Your task to perform on an android device: Go to battery settings Image 0: 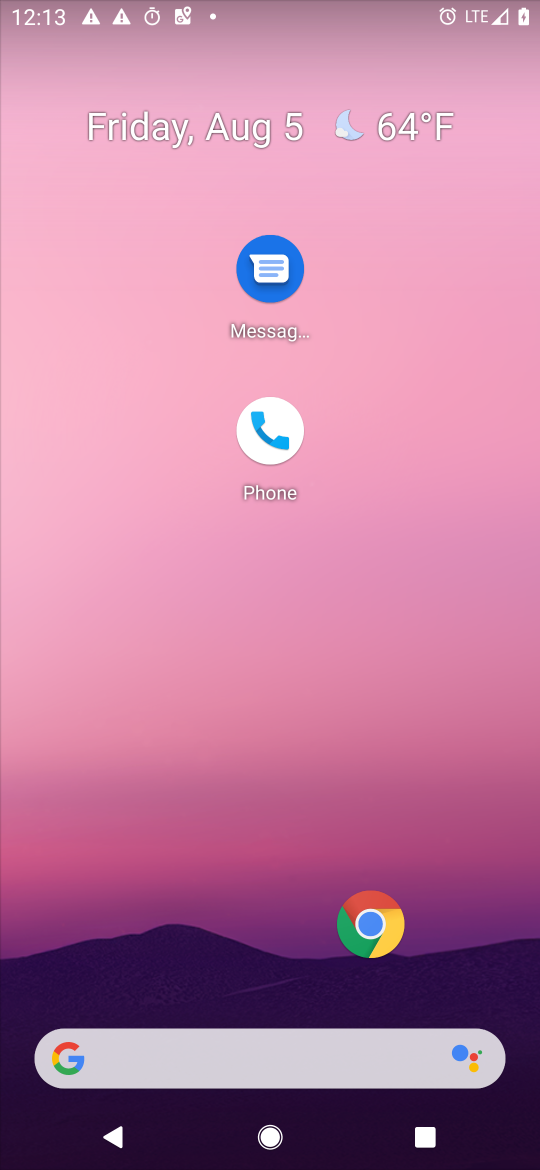
Step 0: drag from (217, 912) to (192, 336)
Your task to perform on an android device: Go to battery settings Image 1: 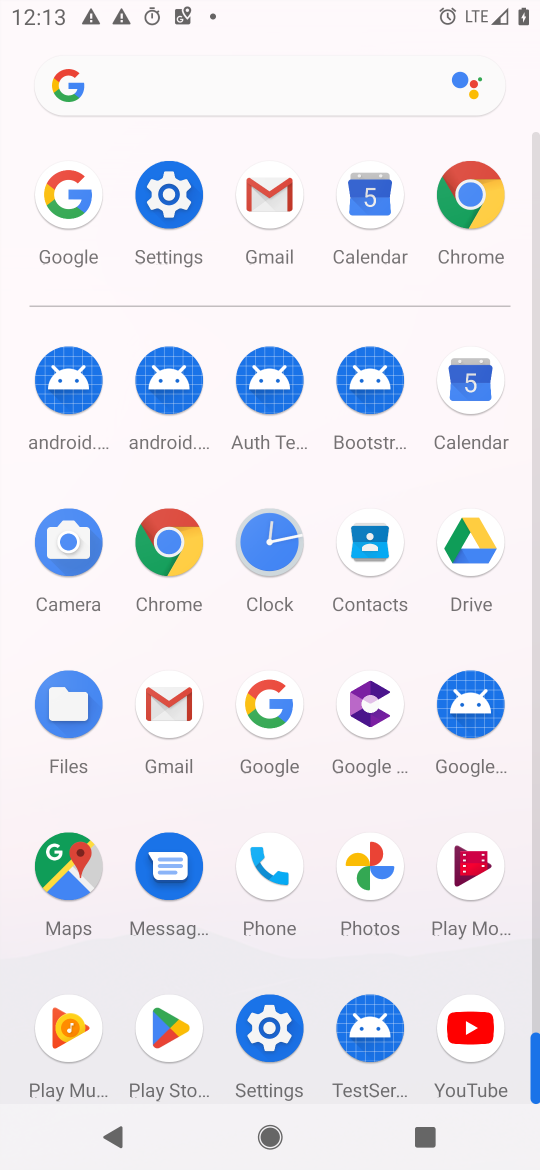
Step 1: click (161, 193)
Your task to perform on an android device: Go to battery settings Image 2: 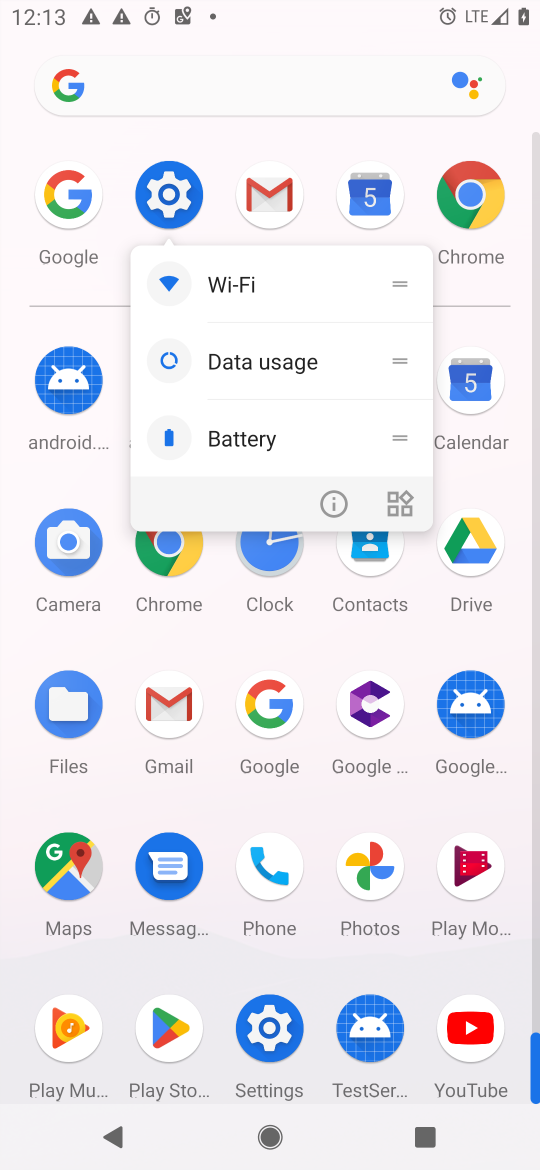
Step 2: click (339, 503)
Your task to perform on an android device: Go to battery settings Image 3: 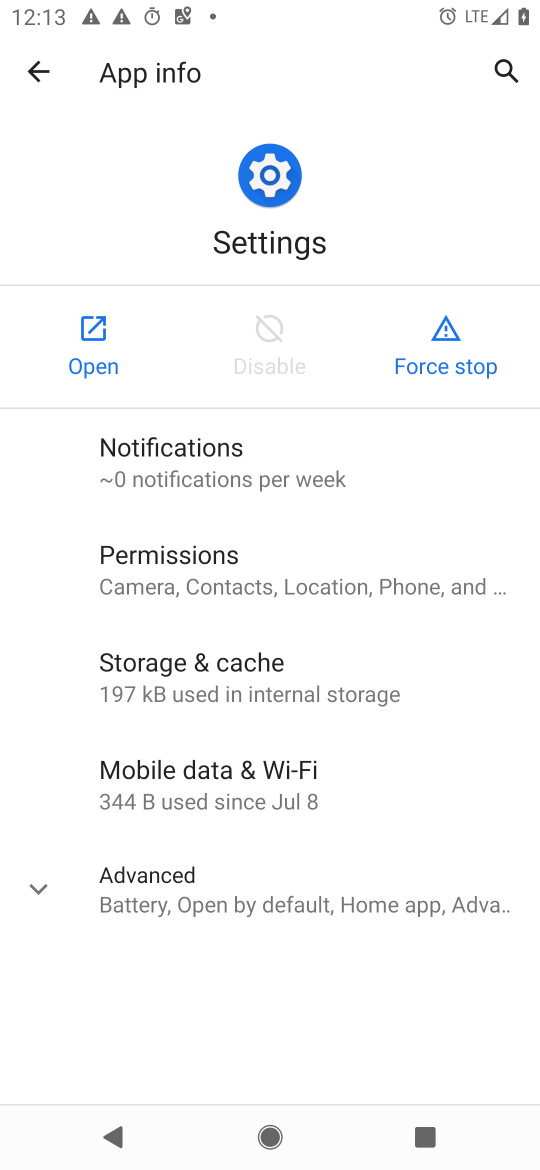
Step 3: click (90, 358)
Your task to perform on an android device: Go to battery settings Image 4: 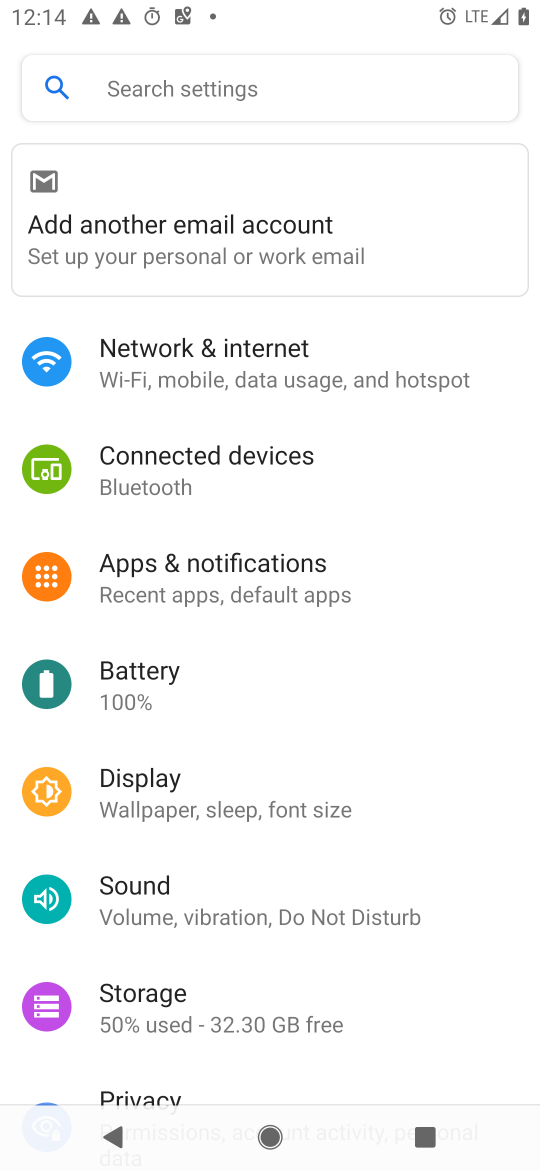
Step 4: click (143, 691)
Your task to perform on an android device: Go to battery settings Image 5: 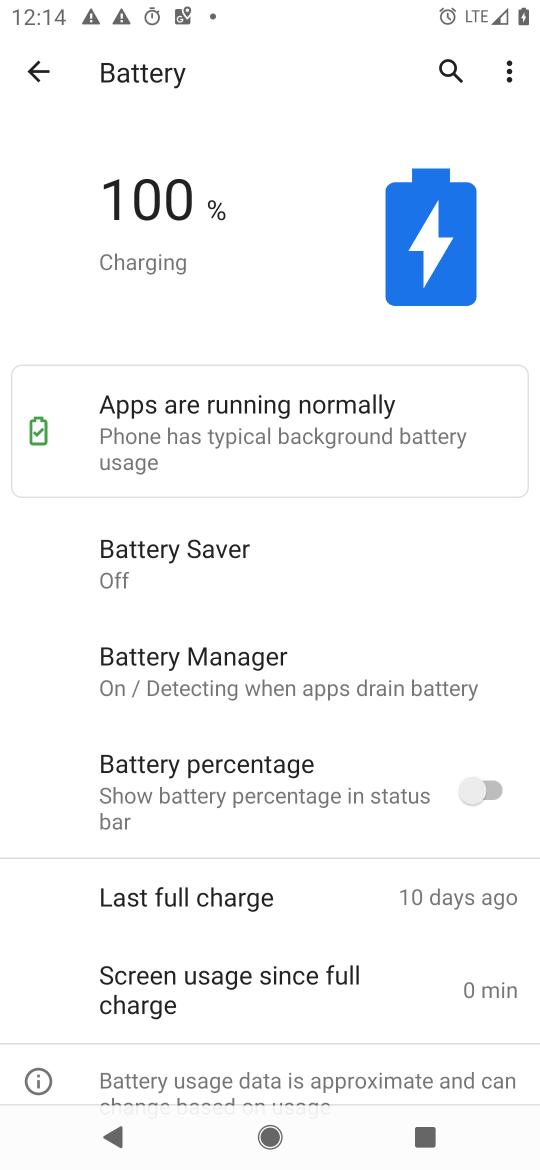
Step 5: task complete